Your task to perform on an android device: Go to Reddit.com Image 0: 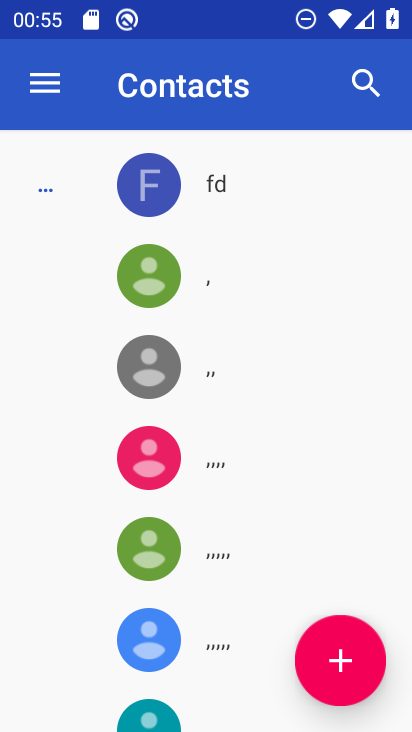
Step 0: drag from (214, 545) to (221, 179)
Your task to perform on an android device: Go to Reddit.com Image 1: 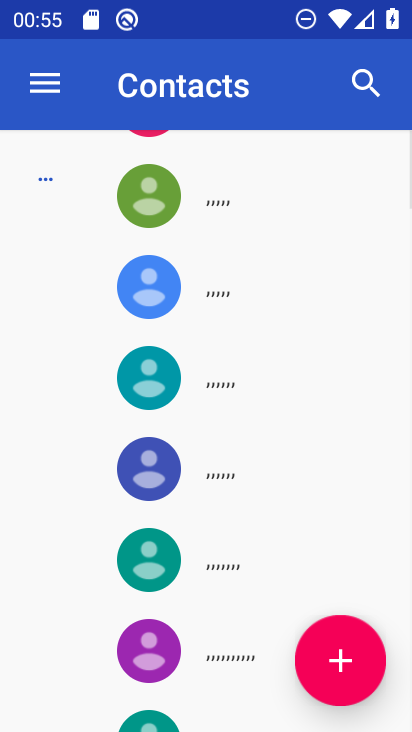
Step 1: press home button
Your task to perform on an android device: Go to Reddit.com Image 2: 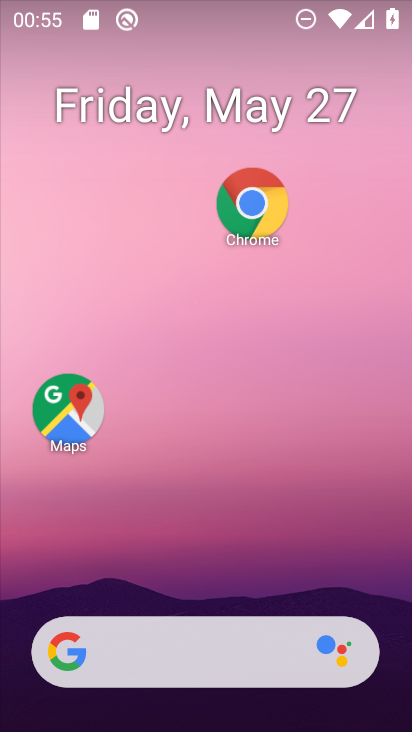
Step 2: drag from (219, 595) to (231, 124)
Your task to perform on an android device: Go to Reddit.com Image 3: 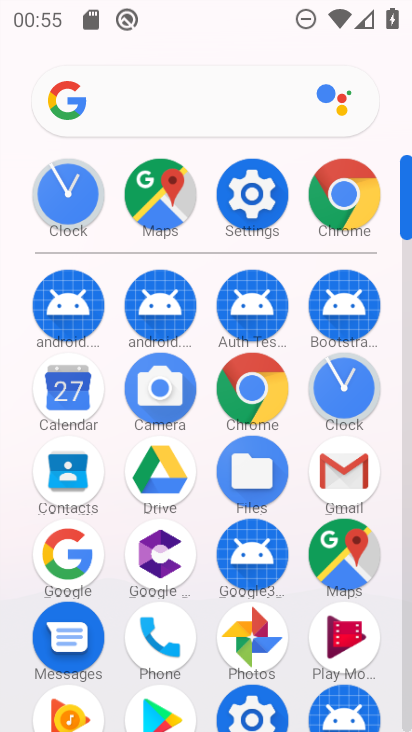
Step 3: click (228, 97)
Your task to perform on an android device: Go to Reddit.com Image 4: 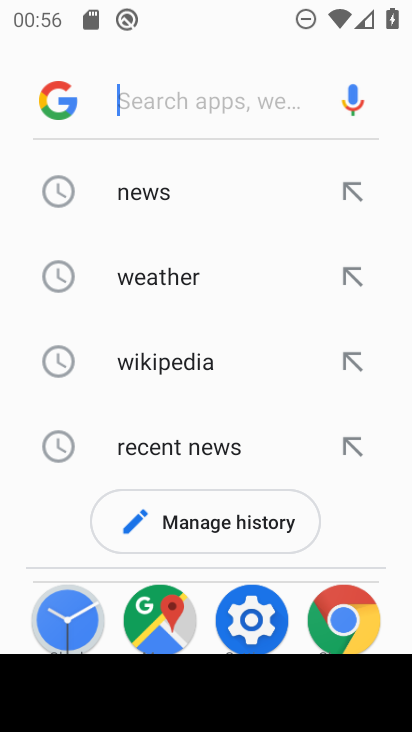
Step 4: type "Reddit.com"
Your task to perform on an android device: Go to Reddit.com Image 5: 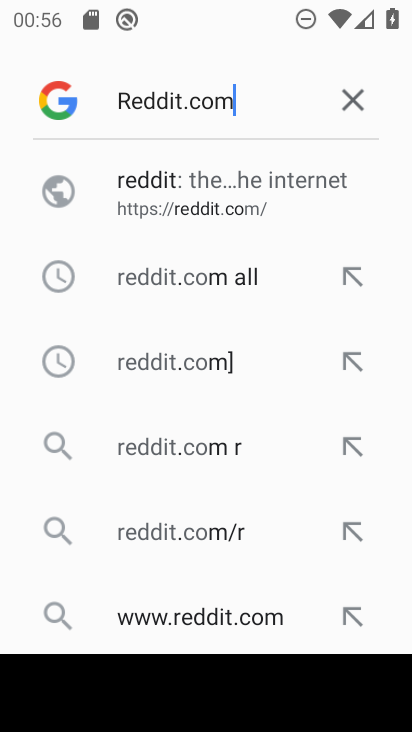
Step 5: type ""
Your task to perform on an android device: Go to Reddit.com Image 6: 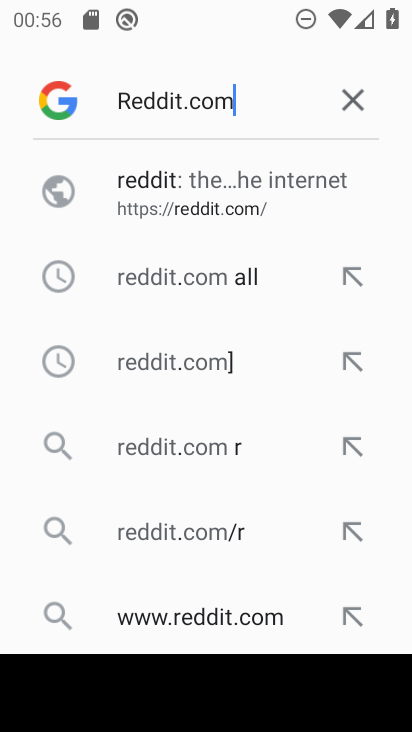
Step 6: click (165, 195)
Your task to perform on an android device: Go to Reddit.com Image 7: 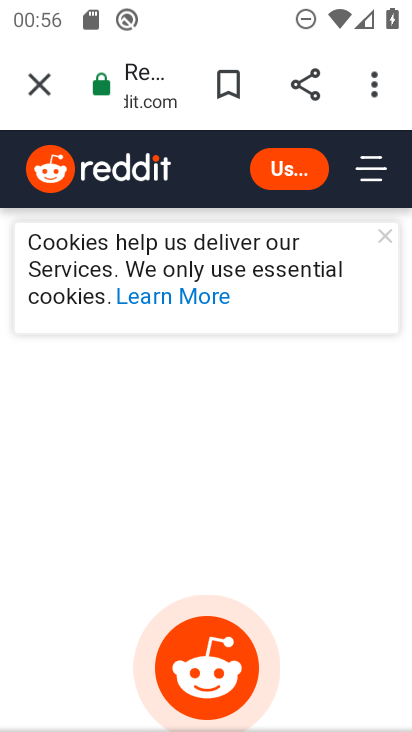
Step 7: task complete